Your task to perform on an android device: Is it going to rain tomorrow? Image 0: 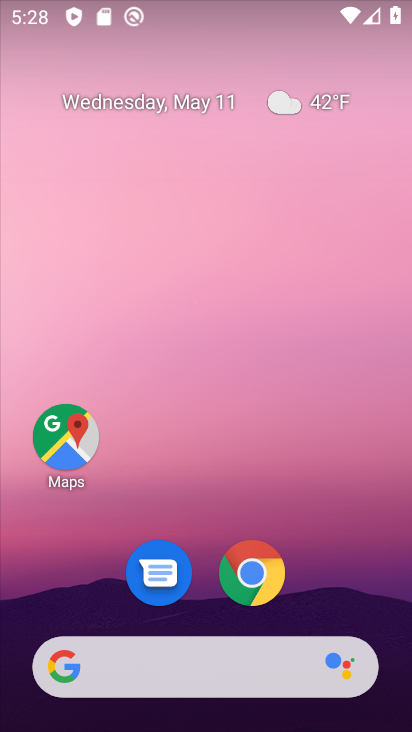
Step 0: click (307, 224)
Your task to perform on an android device: Is it going to rain tomorrow? Image 1: 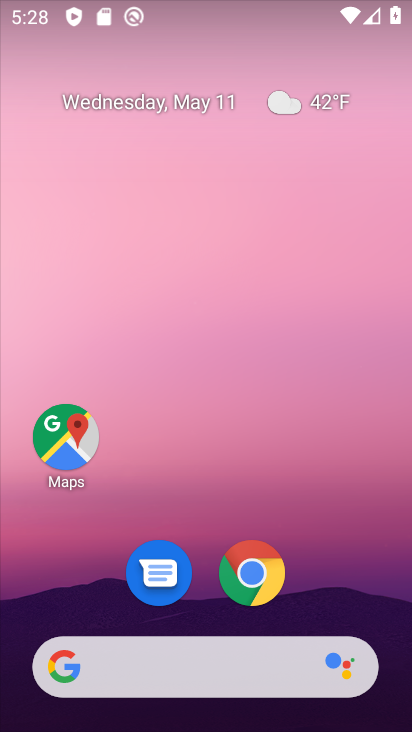
Step 1: drag from (297, 599) to (236, 235)
Your task to perform on an android device: Is it going to rain tomorrow? Image 2: 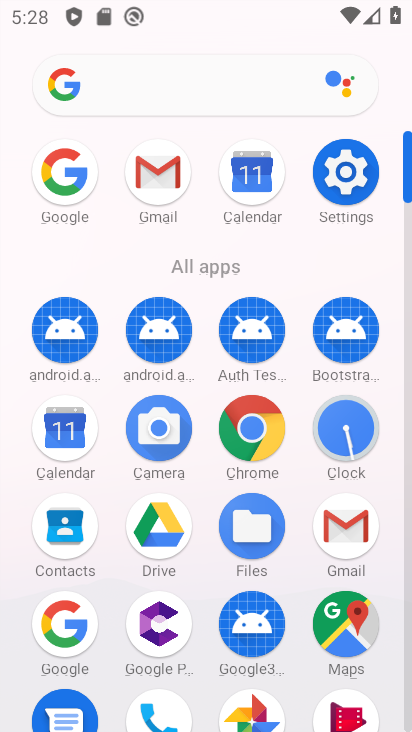
Step 2: click (68, 638)
Your task to perform on an android device: Is it going to rain tomorrow? Image 3: 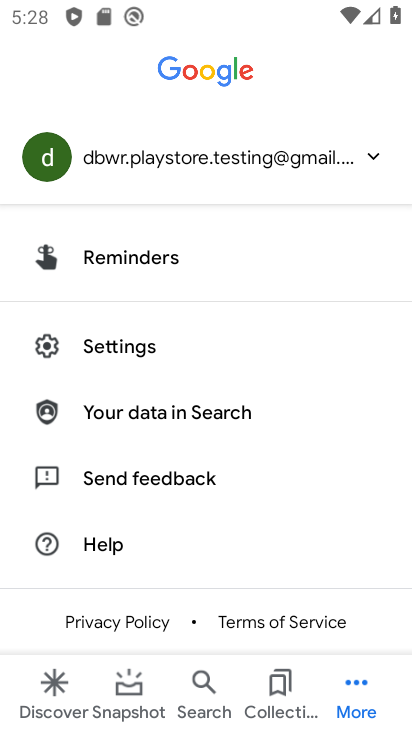
Step 3: press back button
Your task to perform on an android device: Is it going to rain tomorrow? Image 4: 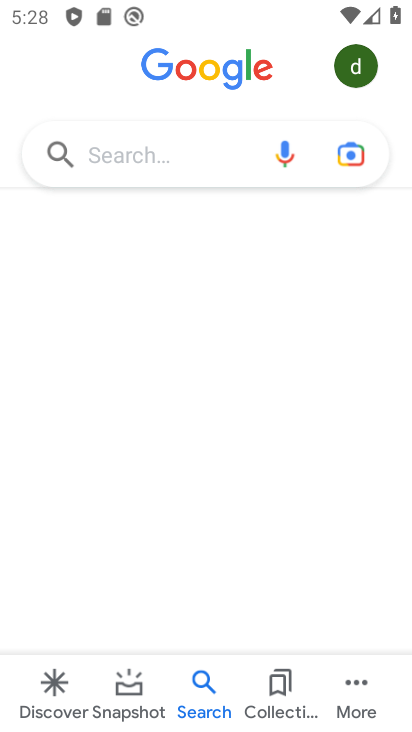
Step 4: click (201, 144)
Your task to perform on an android device: Is it going to rain tomorrow? Image 5: 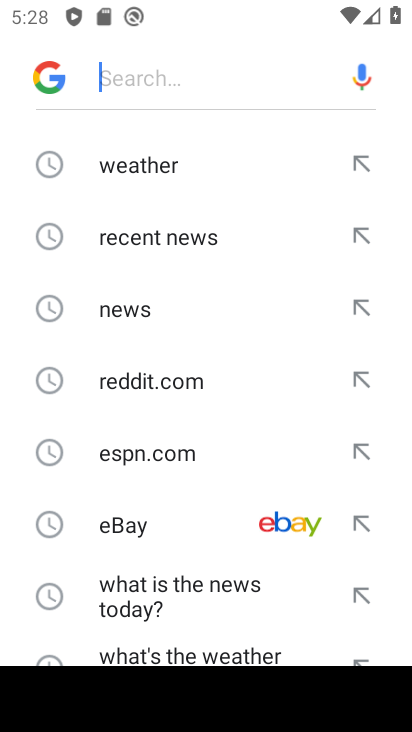
Step 5: click (174, 164)
Your task to perform on an android device: Is it going to rain tomorrow? Image 6: 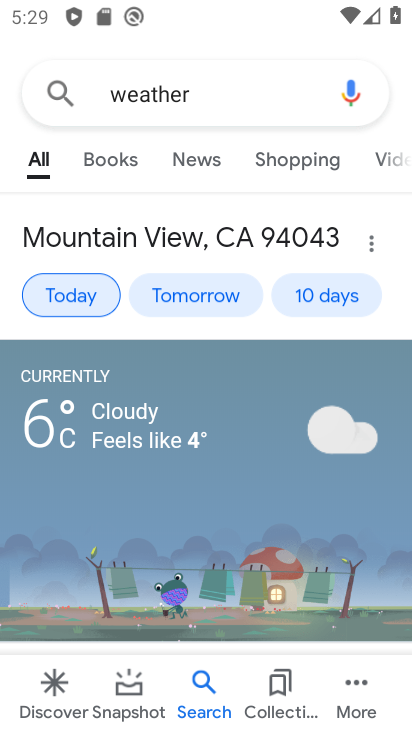
Step 6: click (235, 302)
Your task to perform on an android device: Is it going to rain tomorrow? Image 7: 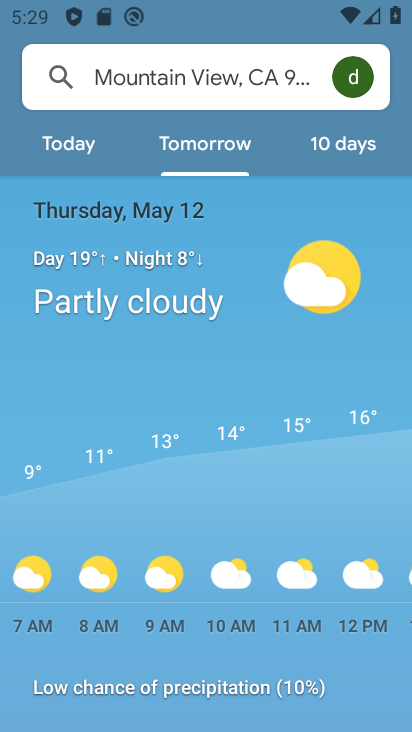
Step 7: drag from (272, 673) to (245, 416)
Your task to perform on an android device: Is it going to rain tomorrow? Image 8: 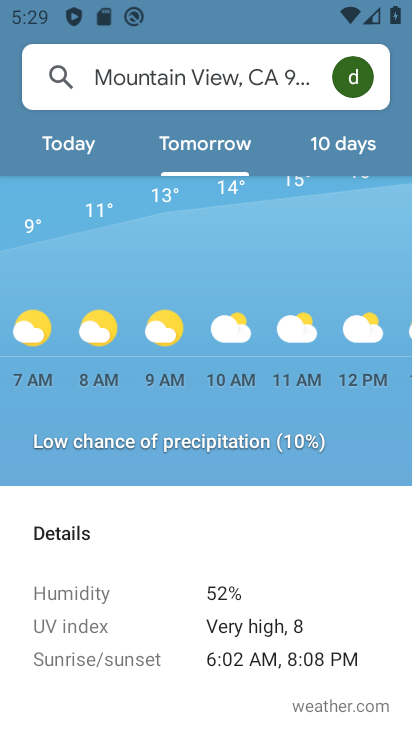
Step 8: drag from (375, 353) to (73, 349)
Your task to perform on an android device: Is it going to rain tomorrow? Image 9: 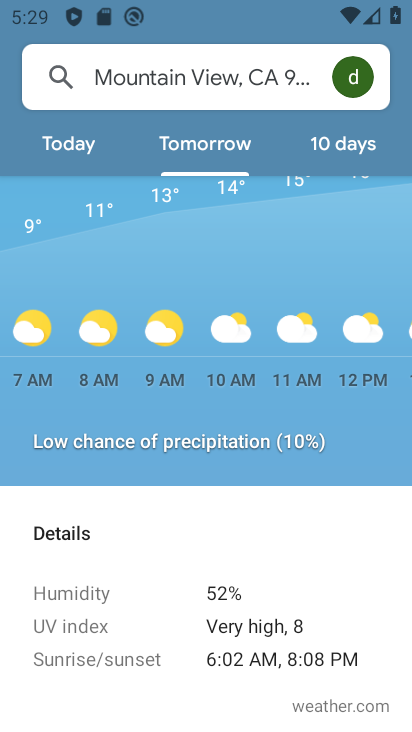
Step 9: drag from (329, 346) to (11, 361)
Your task to perform on an android device: Is it going to rain tomorrow? Image 10: 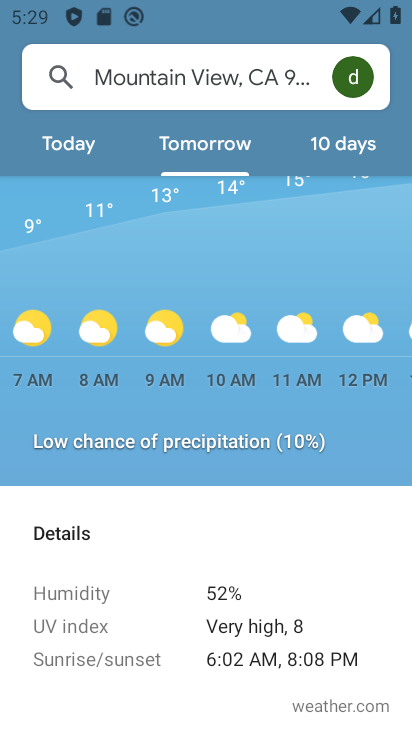
Step 10: drag from (356, 394) to (29, 407)
Your task to perform on an android device: Is it going to rain tomorrow? Image 11: 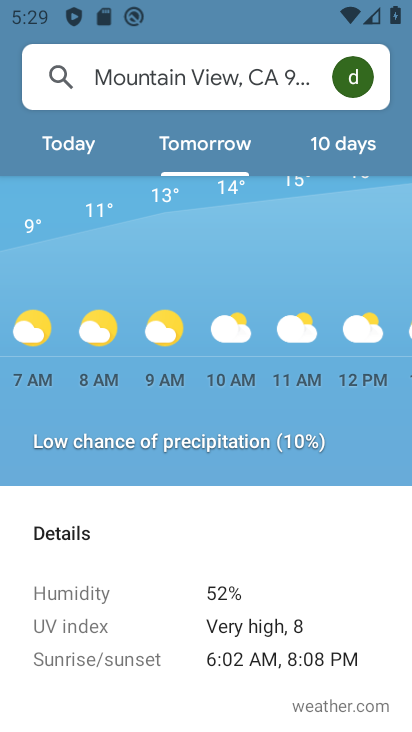
Step 11: drag from (360, 331) to (9, 351)
Your task to perform on an android device: Is it going to rain tomorrow? Image 12: 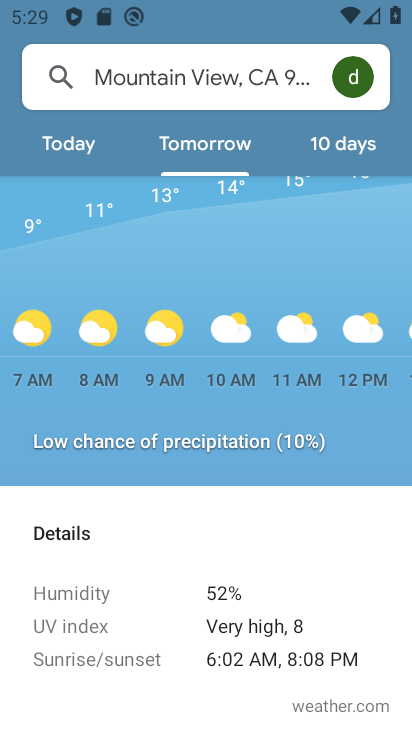
Step 12: drag from (101, 385) to (0, 382)
Your task to perform on an android device: Is it going to rain tomorrow? Image 13: 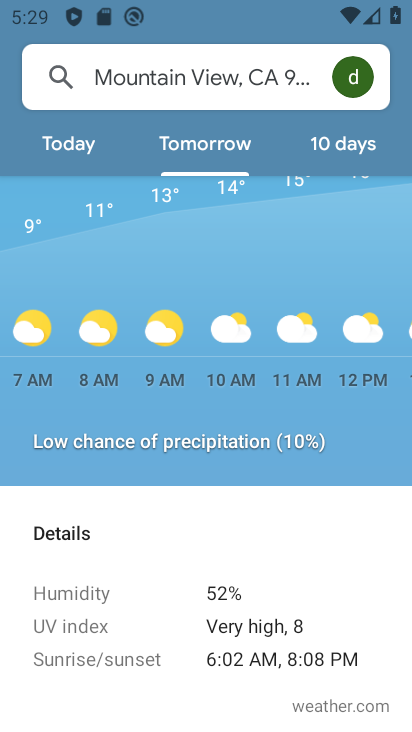
Step 13: drag from (235, 385) to (288, 389)
Your task to perform on an android device: Is it going to rain tomorrow? Image 14: 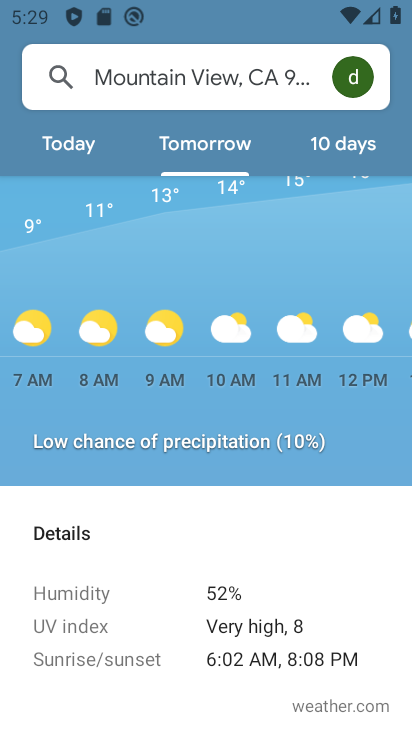
Step 14: drag from (309, 384) to (85, 422)
Your task to perform on an android device: Is it going to rain tomorrow? Image 15: 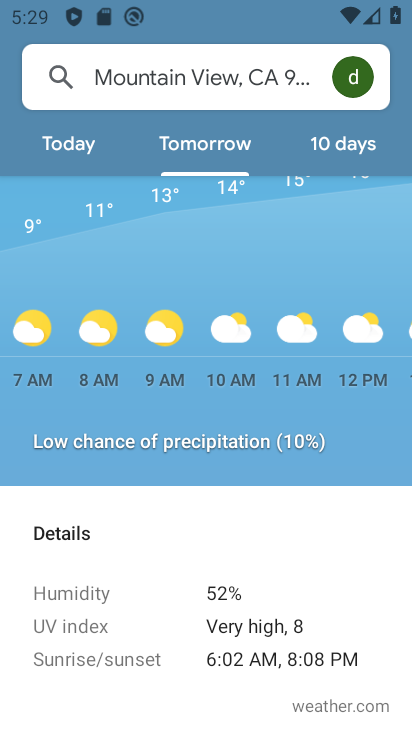
Step 15: drag from (178, 626) to (185, 306)
Your task to perform on an android device: Is it going to rain tomorrow? Image 16: 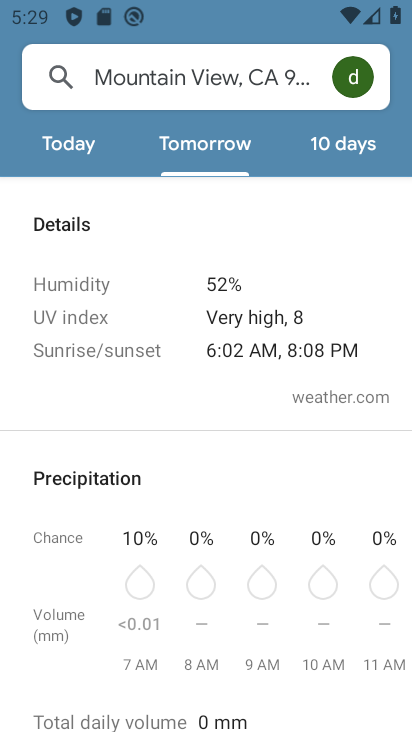
Step 16: click (252, 384)
Your task to perform on an android device: Is it going to rain tomorrow? Image 17: 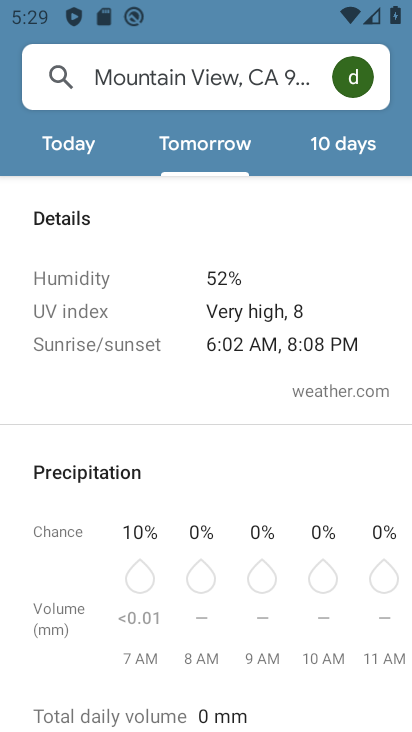
Step 17: task complete